Your task to perform on an android device: Open the map Image 0: 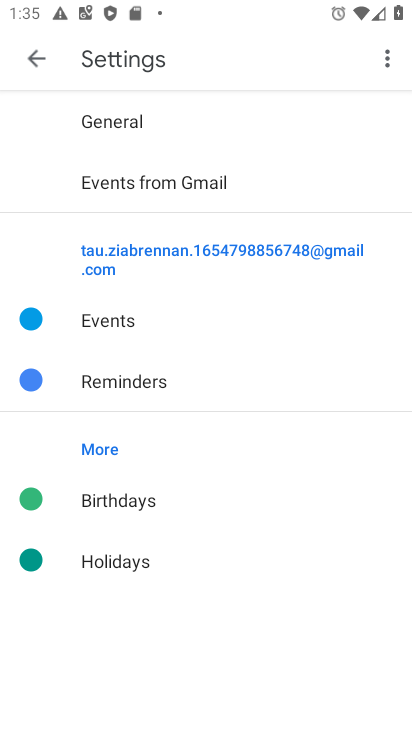
Step 0: press home button
Your task to perform on an android device: Open the map Image 1: 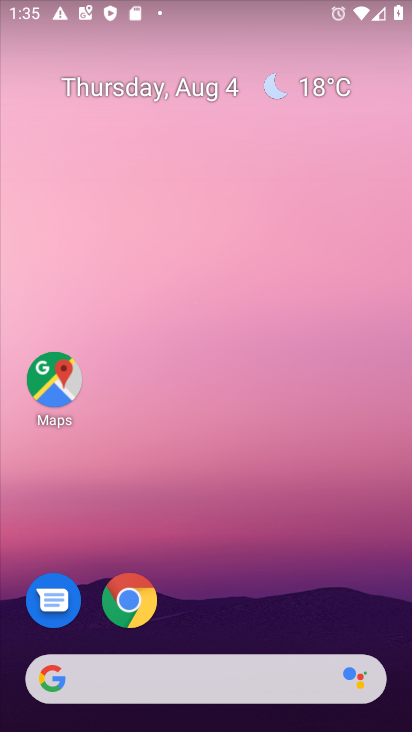
Step 1: click (52, 381)
Your task to perform on an android device: Open the map Image 2: 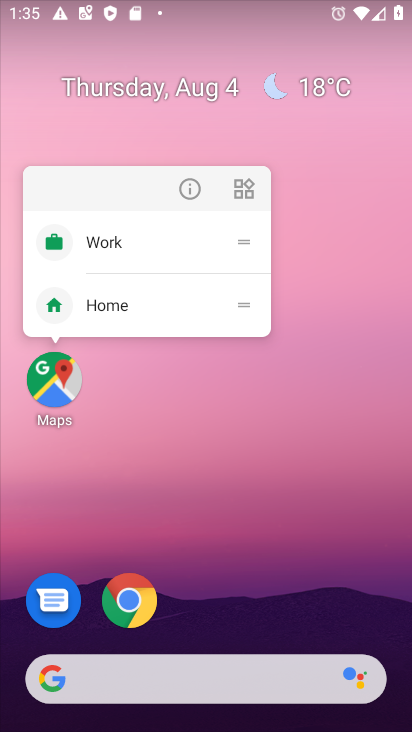
Step 2: click (52, 381)
Your task to perform on an android device: Open the map Image 3: 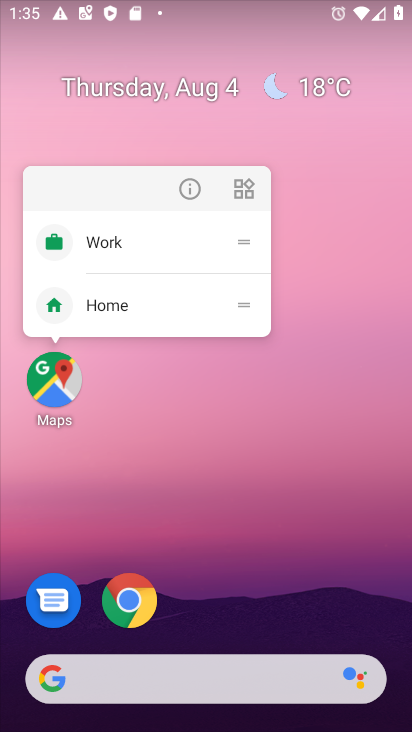
Step 3: click (52, 379)
Your task to perform on an android device: Open the map Image 4: 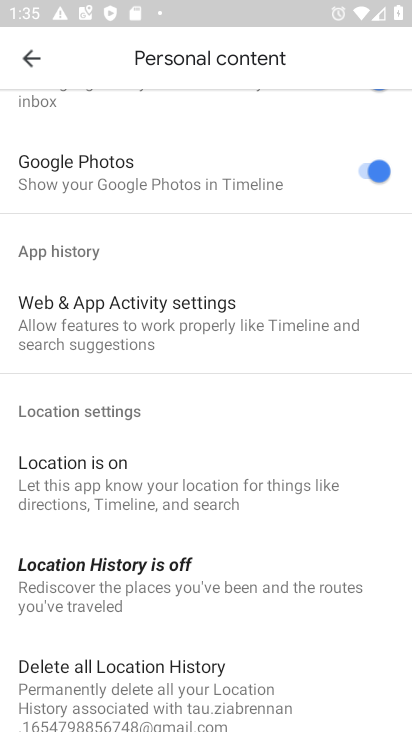
Step 4: click (36, 55)
Your task to perform on an android device: Open the map Image 5: 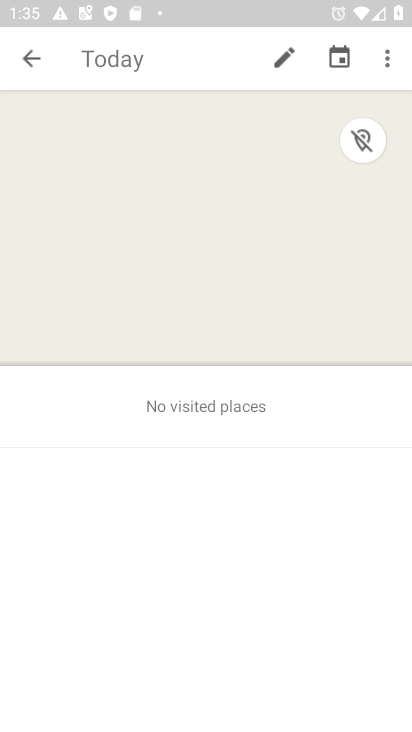
Step 5: click (36, 56)
Your task to perform on an android device: Open the map Image 6: 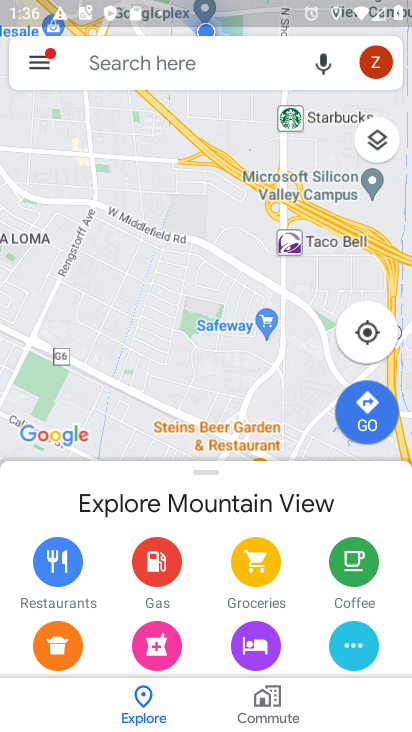
Step 6: task complete